Your task to perform on an android device: change your default location settings in chrome Image 0: 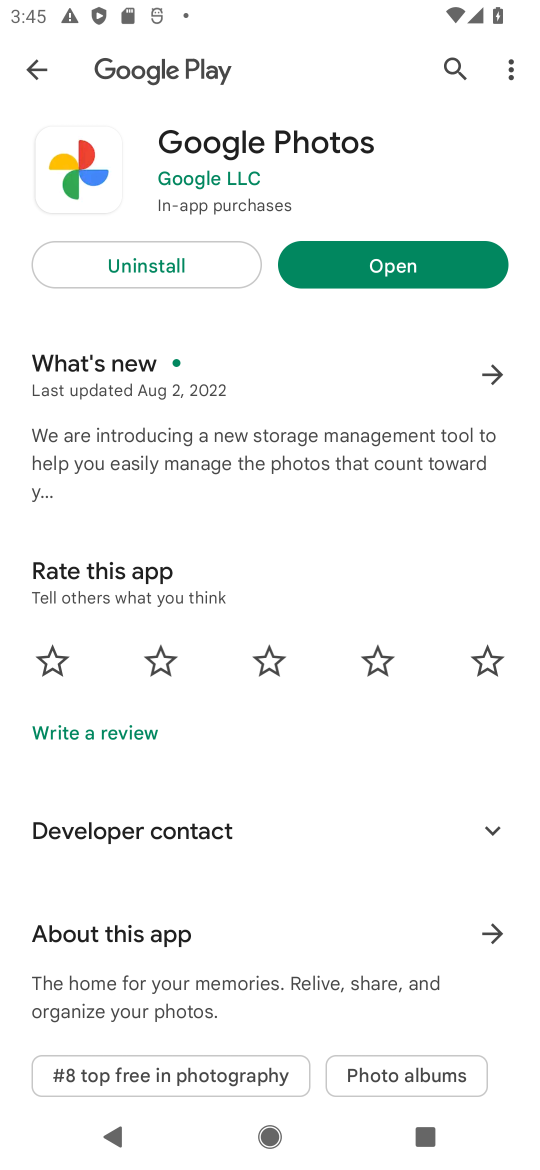
Step 0: press home button
Your task to perform on an android device: change your default location settings in chrome Image 1: 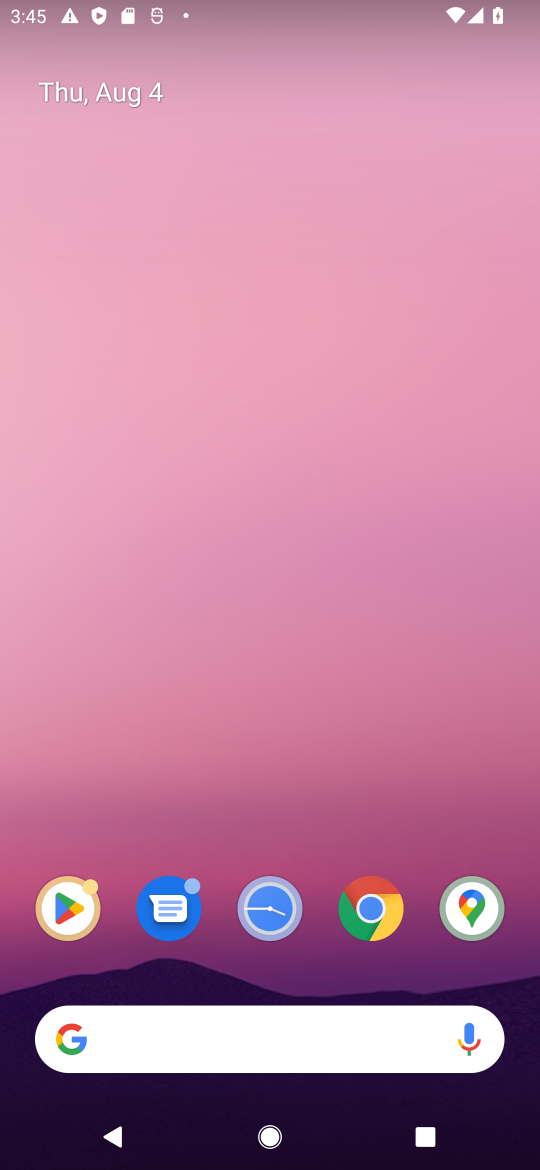
Step 1: drag from (176, 726) to (199, 48)
Your task to perform on an android device: change your default location settings in chrome Image 2: 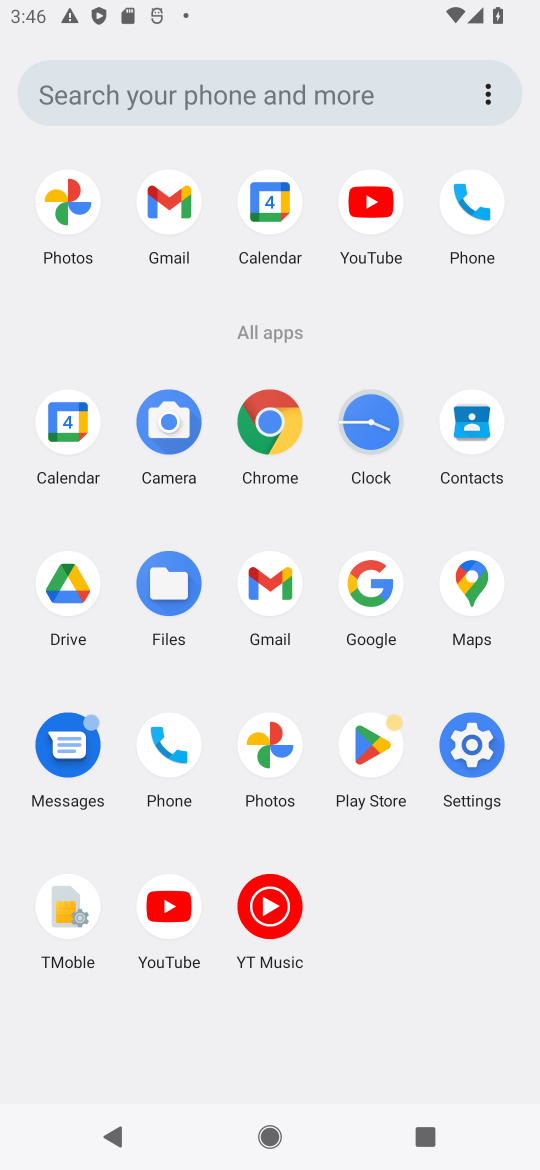
Step 2: click (260, 441)
Your task to perform on an android device: change your default location settings in chrome Image 3: 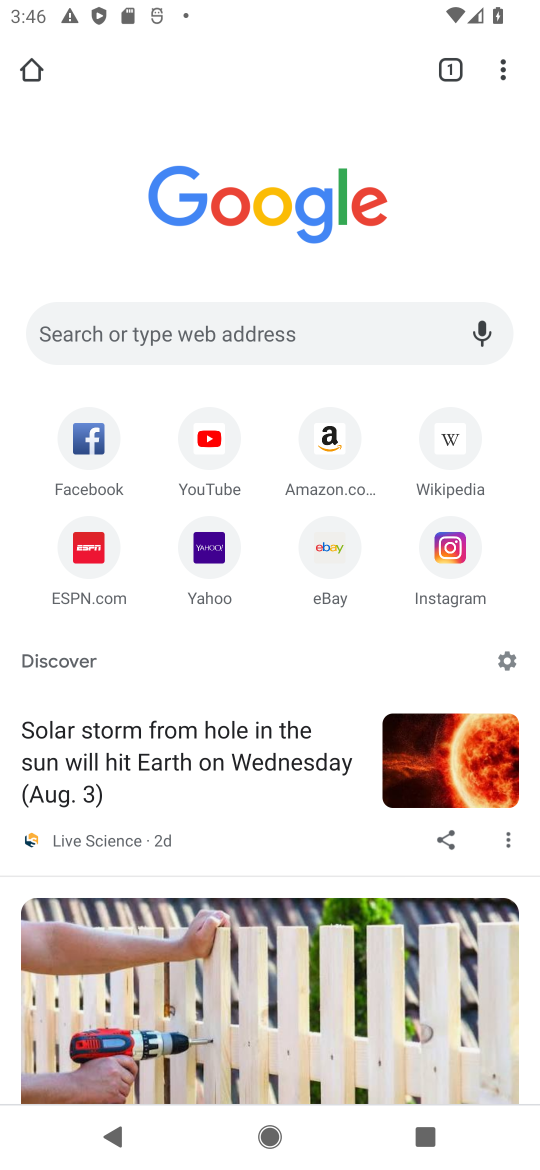
Step 3: drag from (504, 86) to (290, 682)
Your task to perform on an android device: change your default location settings in chrome Image 4: 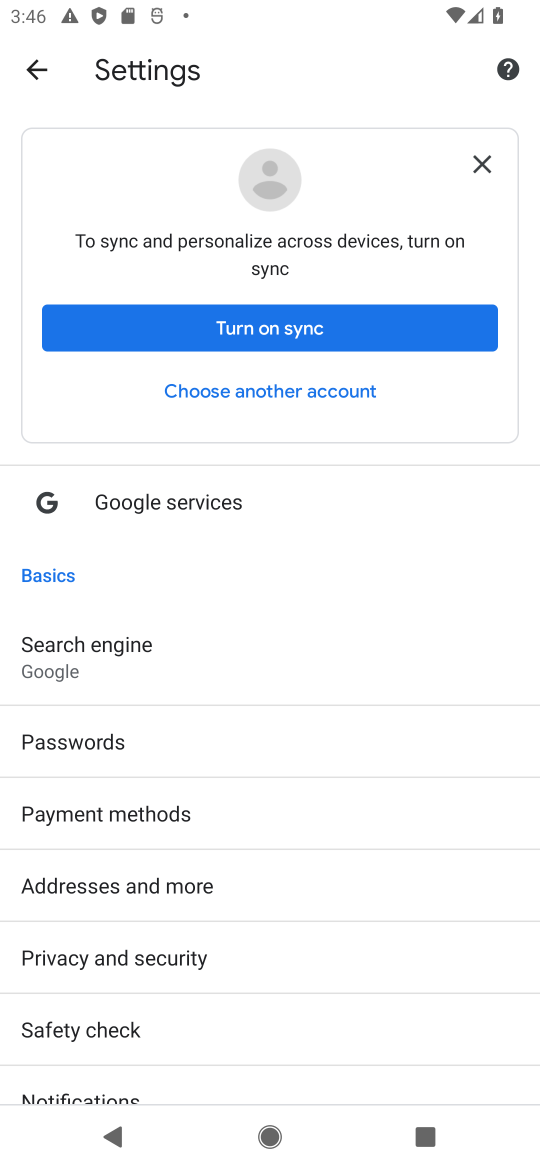
Step 4: drag from (208, 956) to (274, 432)
Your task to perform on an android device: change your default location settings in chrome Image 5: 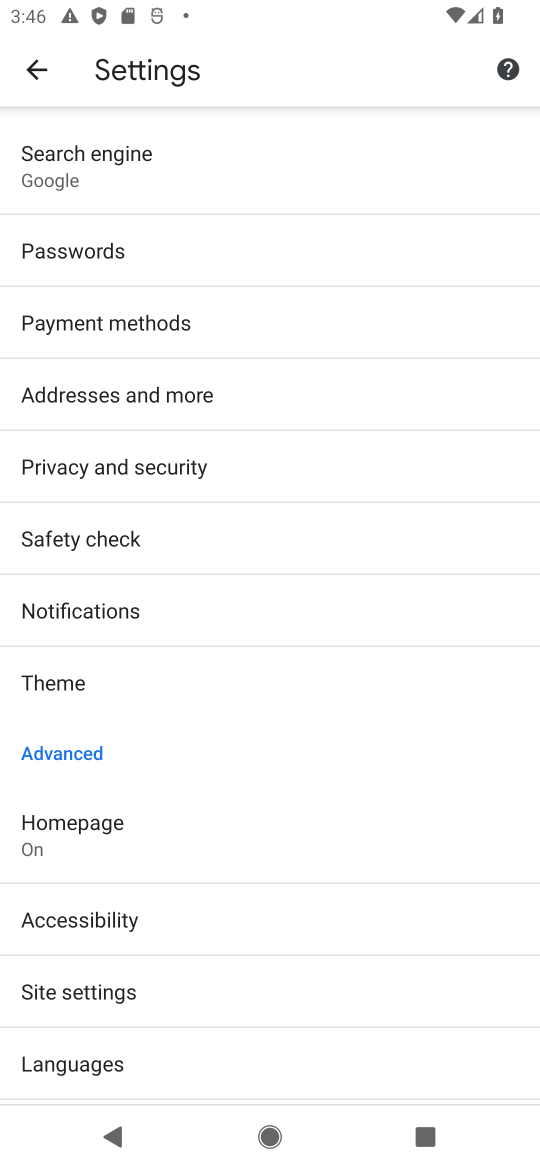
Step 5: click (133, 997)
Your task to perform on an android device: change your default location settings in chrome Image 6: 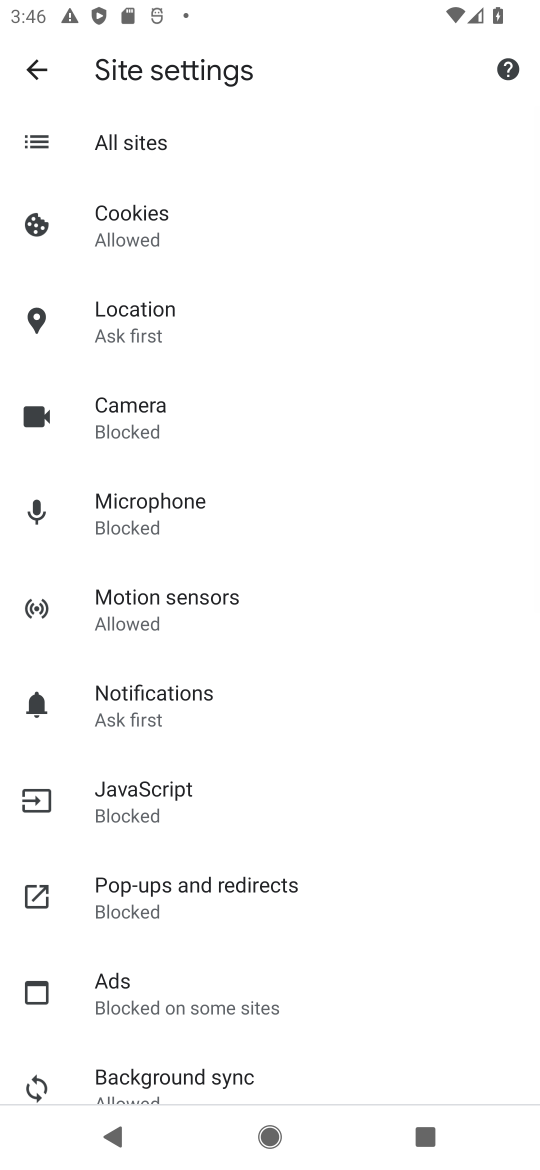
Step 6: click (128, 335)
Your task to perform on an android device: change your default location settings in chrome Image 7: 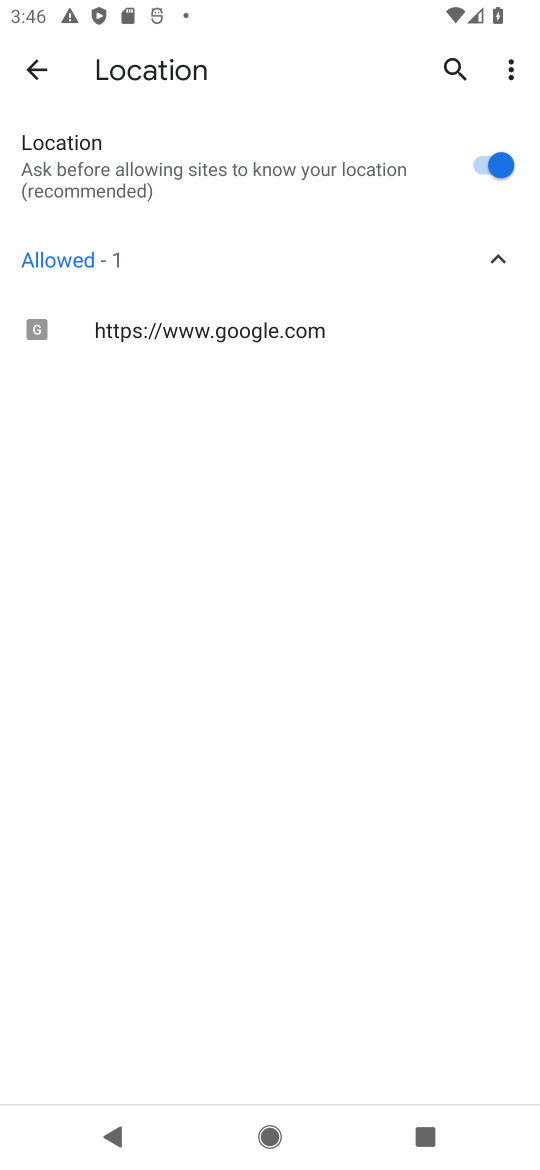
Step 7: click (508, 166)
Your task to perform on an android device: change your default location settings in chrome Image 8: 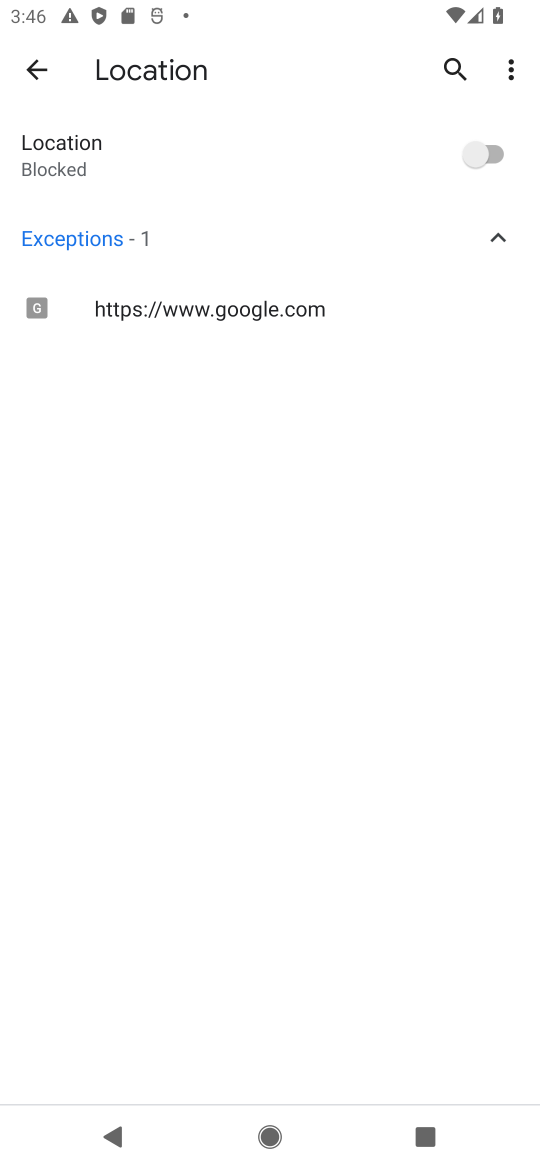
Step 8: task complete